Your task to perform on an android device: Open network settings Image 0: 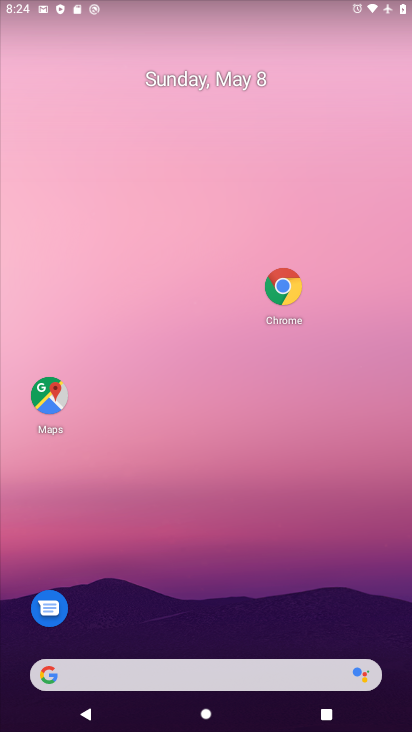
Step 0: drag from (204, 658) to (324, 159)
Your task to perform on an android device: Open network settings Image 1: 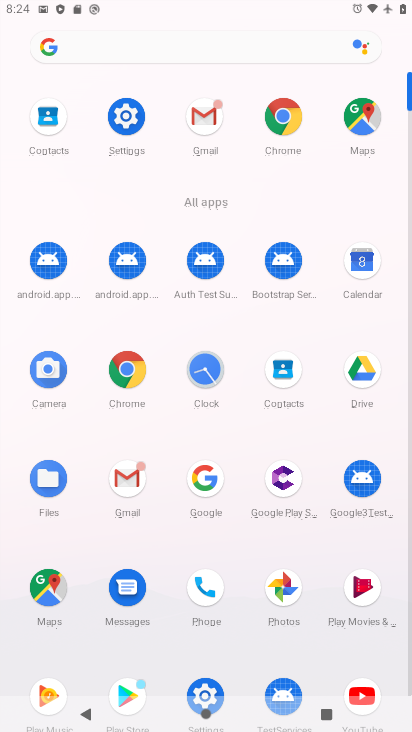
Step 1: click (121, 112)
Your task to perform on an android device: Open network settings Image 2: 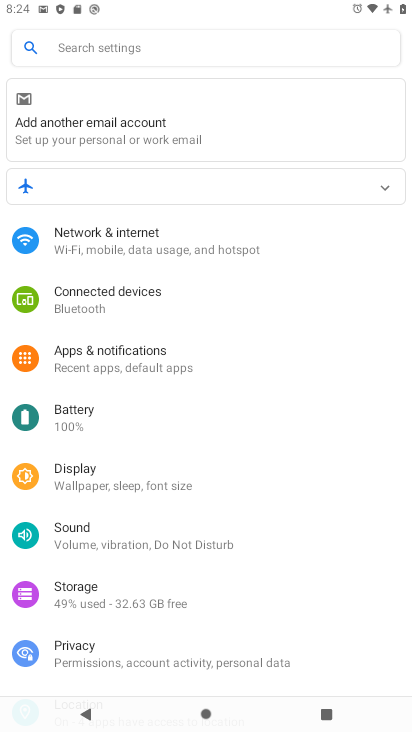
Step 2: click (139, 240)
Your task to perform on an android device: Open network settings Image 3: 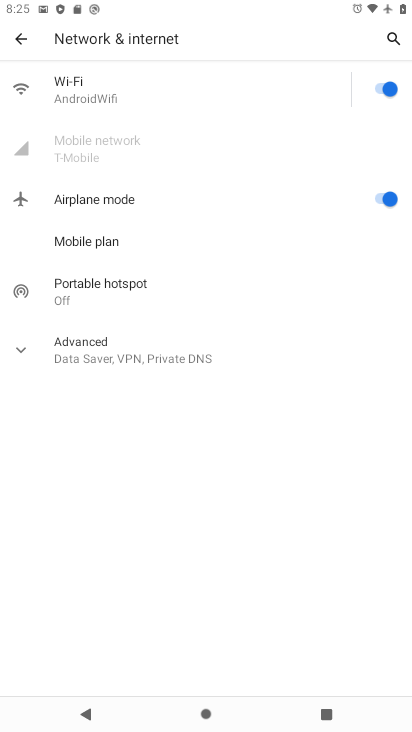
Step 3: click (92, 340)
Your task to perform on an android device: Open network settings Image 4: 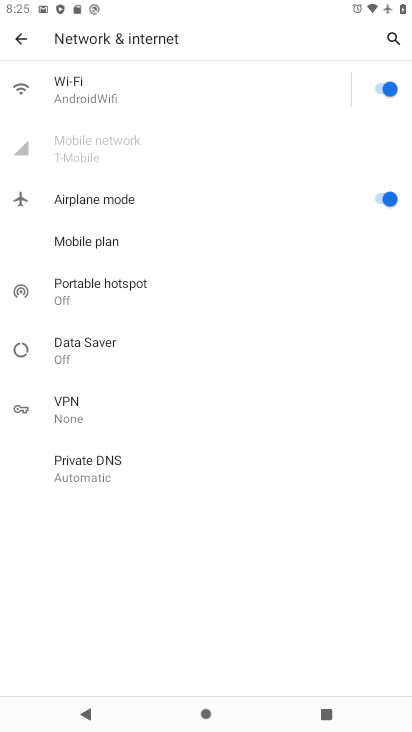
Step 4: task complete